Your task to perform on an android device: turn off priority inbox in the gmail app Image 0: 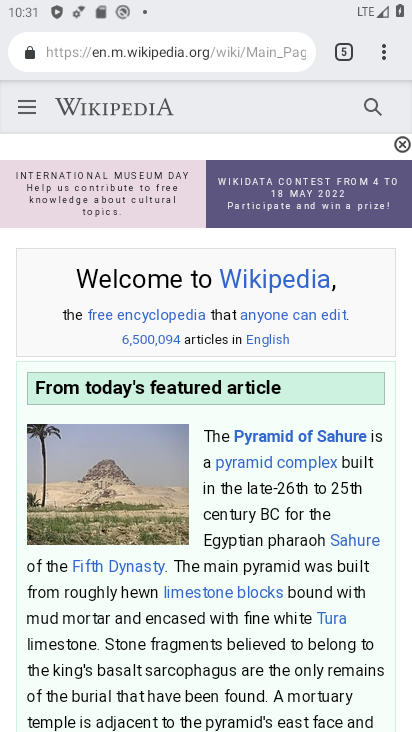
Step 0: press home button
Your task to perform on an android device: turn off priority inbox in the gmail app Image 1: 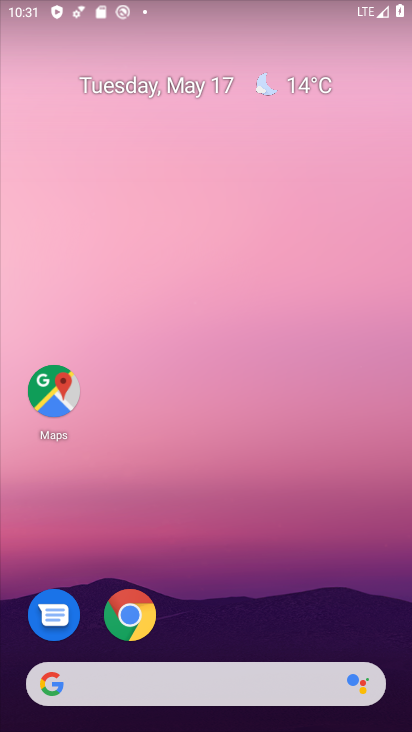
Step 1: drag from (273, 680) to (313, 170)
Your task to perform on an android device: turn off priority inbox in the gmail app Image 2: 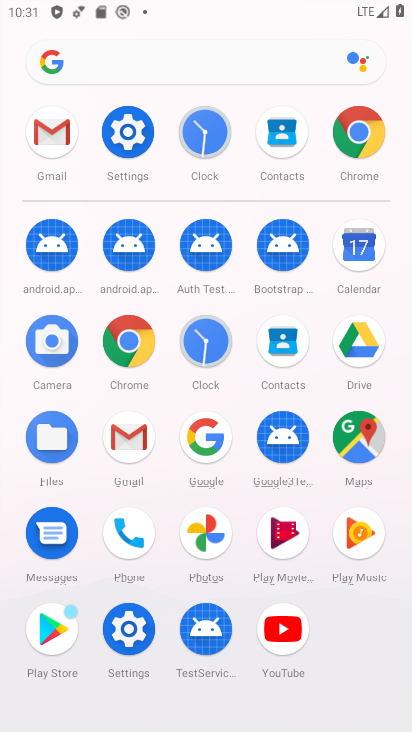
Step 2: click (68, 121)
Your task to perform on an android device: turn off priority inbox in the gmail app Image 3: 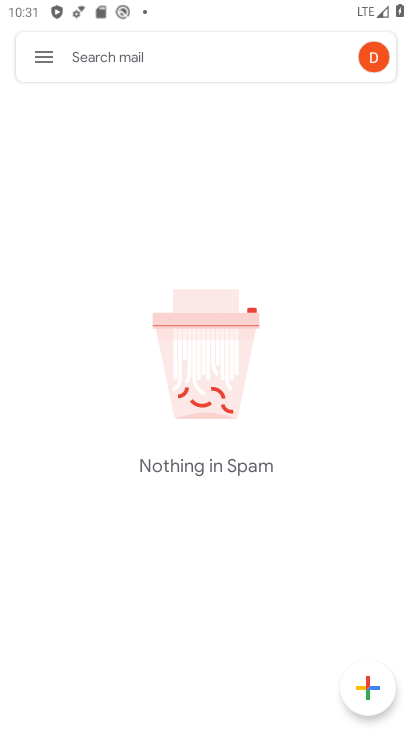
Step 3: click (51, 64)
Your task to perform on an android device: turn off priority inbox in the gmail app Image 4: 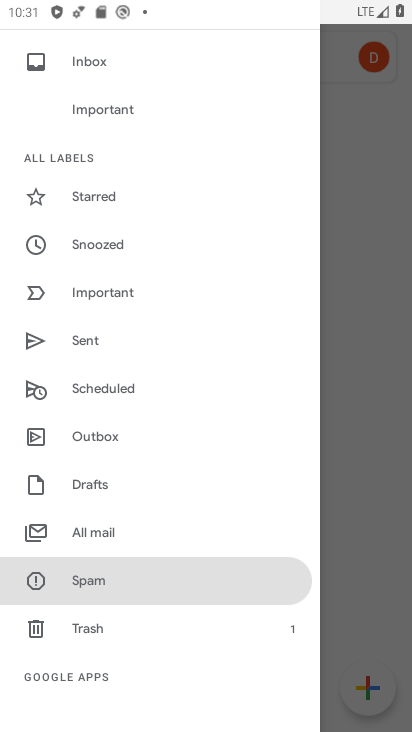
Step 4: drag from (86, 607) to (267, 409)
Your task to perform on an android device: turn off priority inbox in the gmail app Image 5: 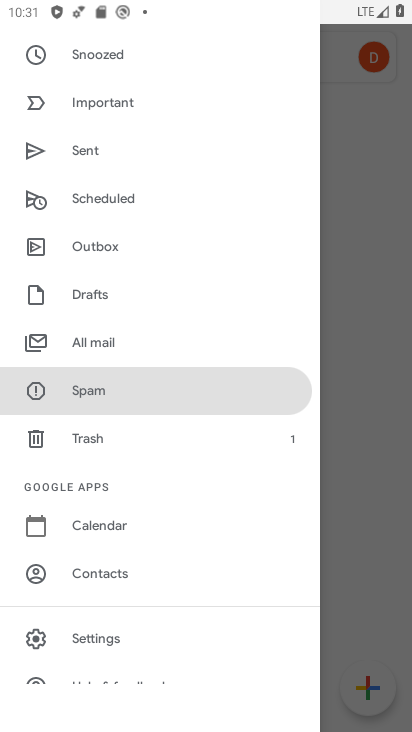
Step 5: click (102, 640)
Your task to perform on an android device: turn off priority inbox in the gmail app Image 6: 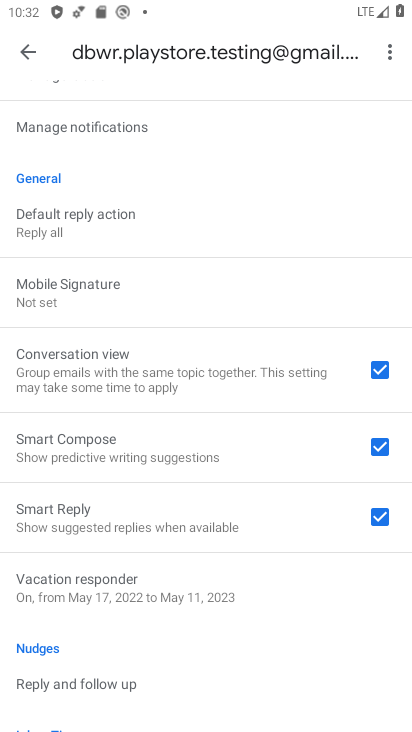
Step 6: drag from (234, 154) to (157, 710)
Your task to perform on an android device: turn off priority inbox in the gmail app Image 7: 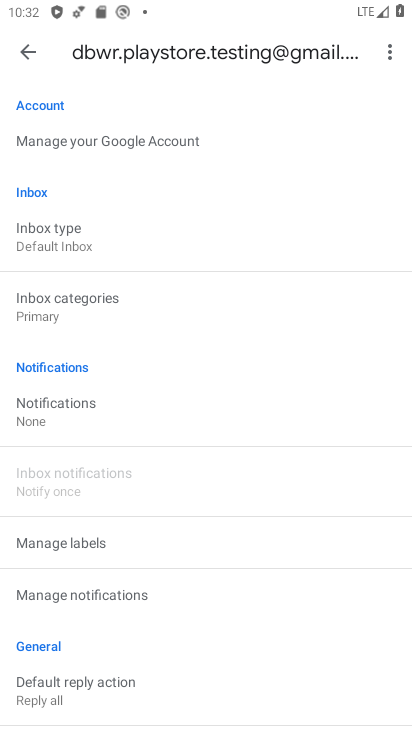
Step 7: click (64, 232)
Your task to perform on an android device: turn off priority inbox in the gmail app Image 8: 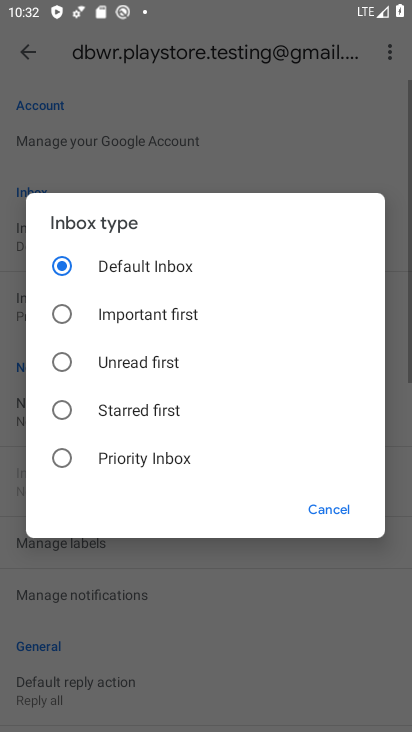
Step 8: click (64, 232)
Your task to perform on an android device: turn off priority inbox in the gmail app Image 9: 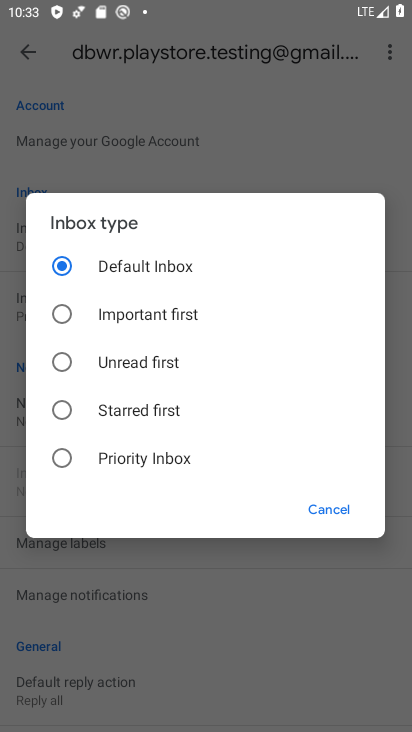
Step 9: task complete